Your task to perform on an android device: turn on notifications settings in the gmail app Image 0: 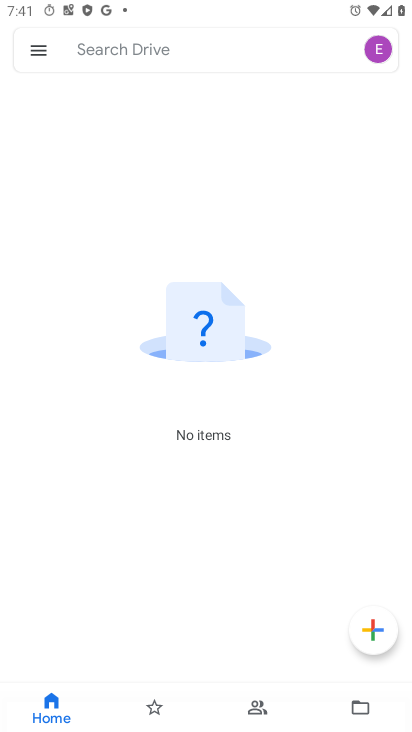
Step 0: press home button
Your task to perform on an android device: turn on notifications settings in the gmail app Image 1: 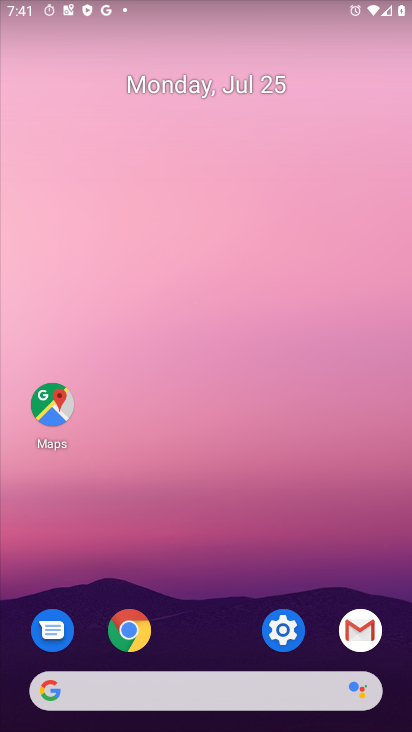
Step 1: click (335, 624)
Your task to perform on an android device: turn on notifications settings in the gmail app Image 2: 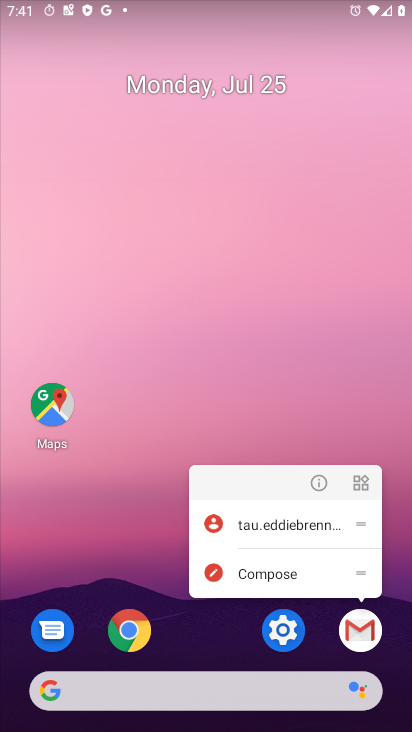
Step 2: click (352, 639)
Your task to perform on an android device: turn on notifications settings in the gmail app Image 3: 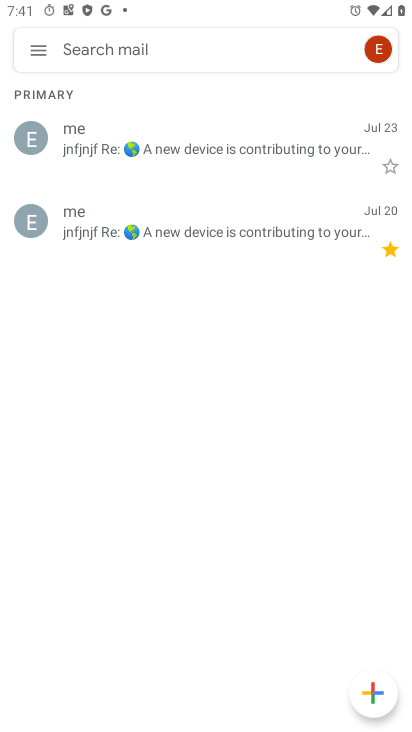
Step 3: click (34, 53)
Your task to perform on an android device: turn on notifications settings in the gmail app Image 4: 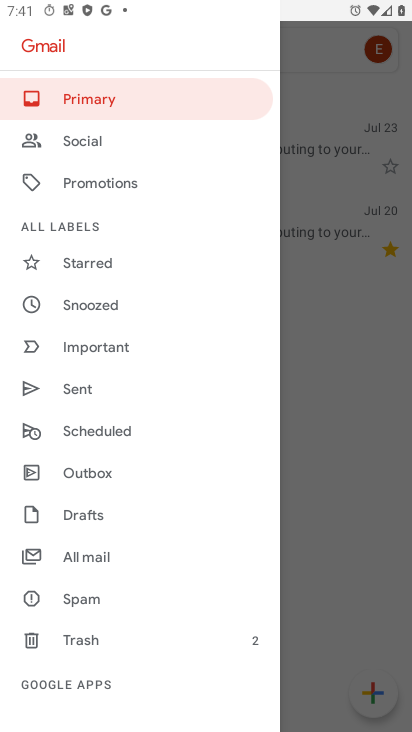
Step 4: drag from (92, 547) to (175, 361)
Your task to perform on an android device: turn on notifications settings in the gmail app Image 5: 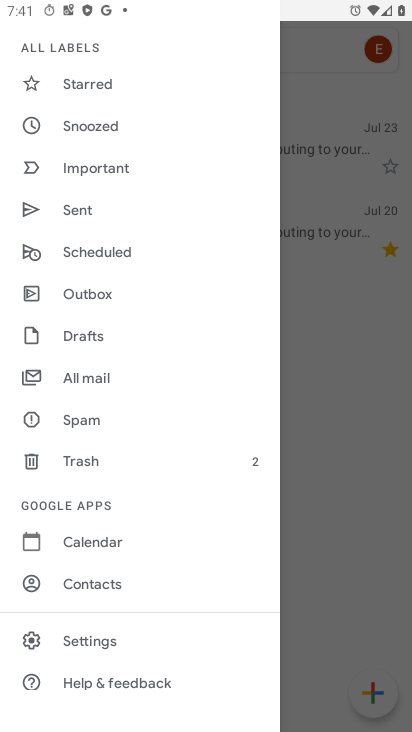
Step 5: click (94, 628)
Your task to perform on an android device: turn on notifications settings in the gmail app Image 6: 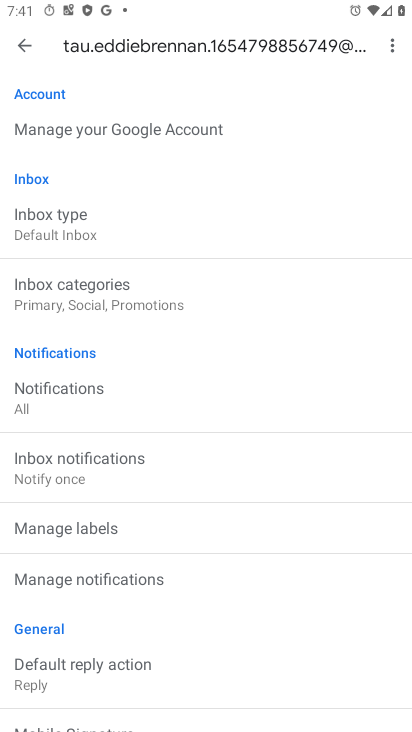
Step 6: click (102, 401)
Your task to perform on an android device: turn on notifications settings in the gmail app Image 7: 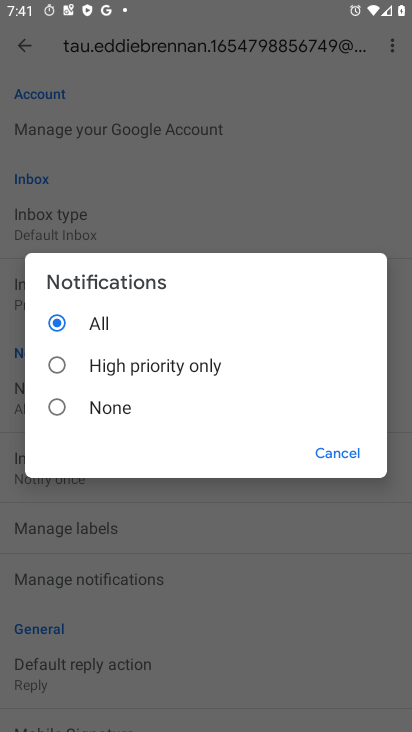
Step 7: task complete